Your task to perform on an android device: Go to Google maps Image 0: 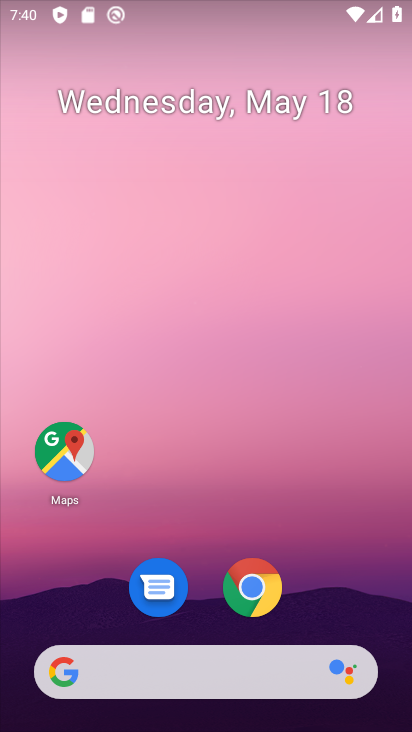
Step 0: drag from (223, 564) to (301, 135)
Your task to perform on an android device: Go to Google maps Image 1: 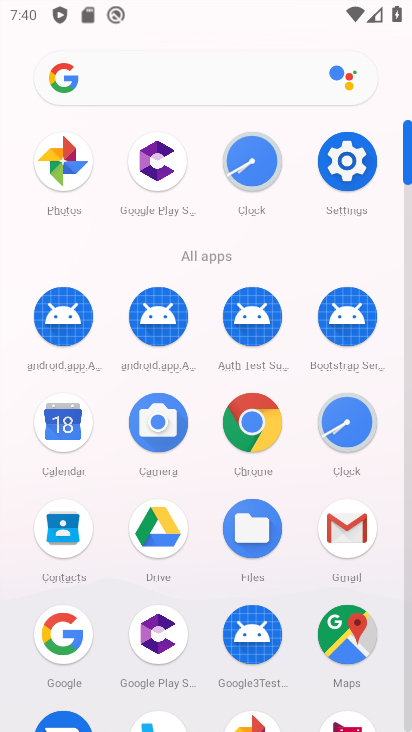
Step 1: drag from (268, 534) to (265, 240)
Your task to perform on an android device: Go to Google maps Image 2: 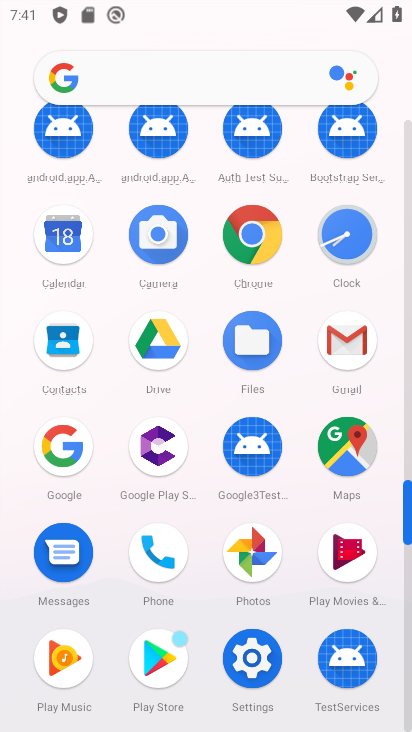
Step 2: click (344, 471)
Your task to perform on an android device: Go to Google maps Image 3: 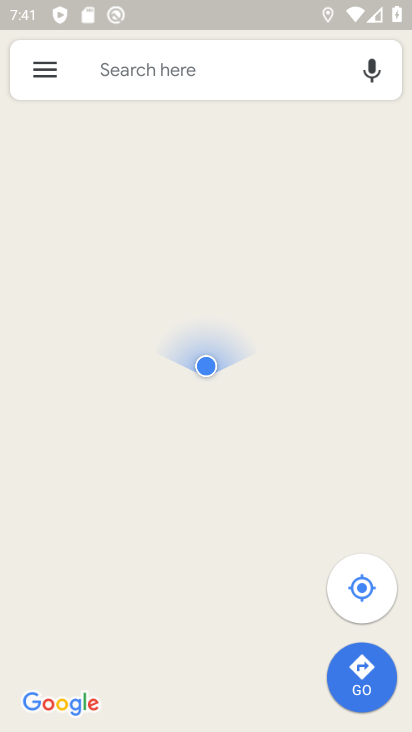
Step 3: task complete